Your task to perform on an android device: change the clock display to analog Image 0: 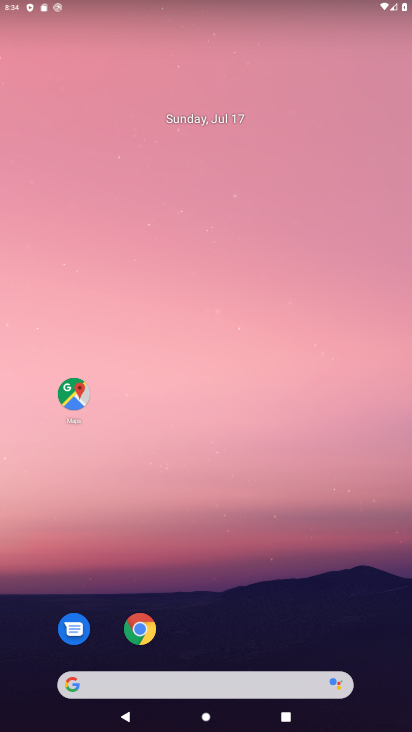
Step 0: drag from (180, 666) to (225, 83)
Your task to perform on an android device: change the clock display to analog Image 1: 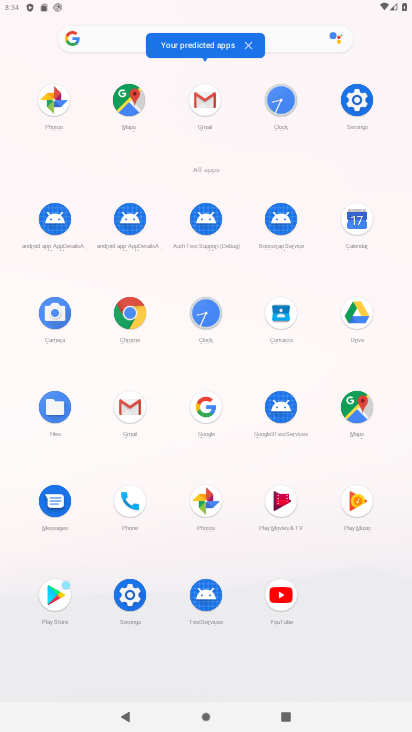
Step 1: click (201, 310)
Your task to perform on an android device: change the clock display to analog Image 2: 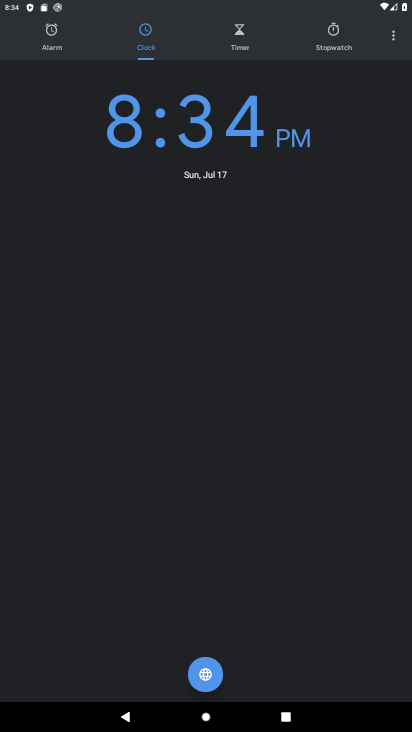
Step 2: click (396, 29)
Your task to perform on an android device: change the clock display to analog Image 3: 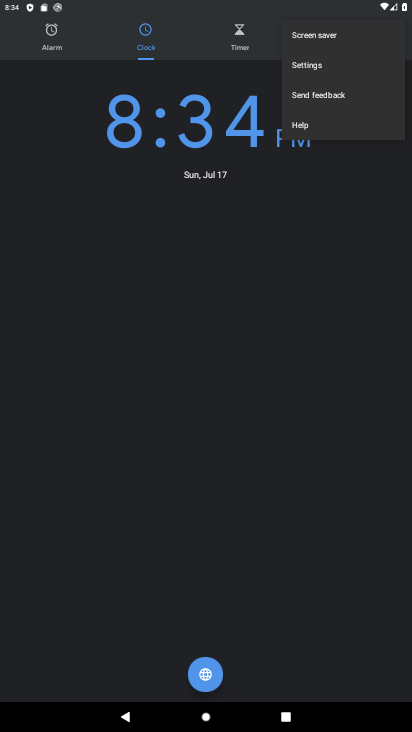
Step 3: click (332, 64)
Your task to perform on an android device: change the clock display to analog Image 4: 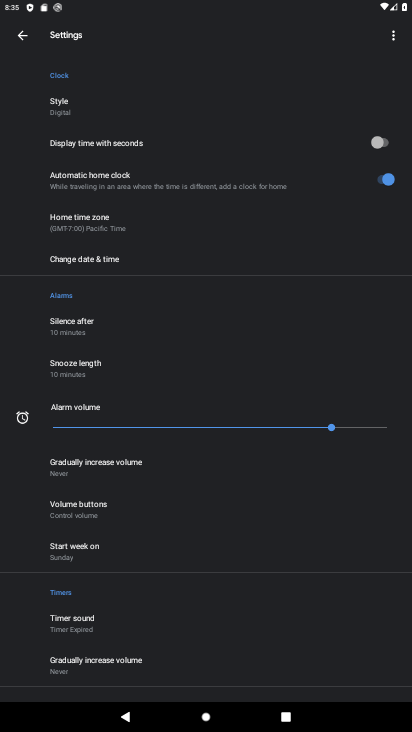
Step 4: click (148, 95)
Your task to perform on an android device: change the clock display to analog Image 5: 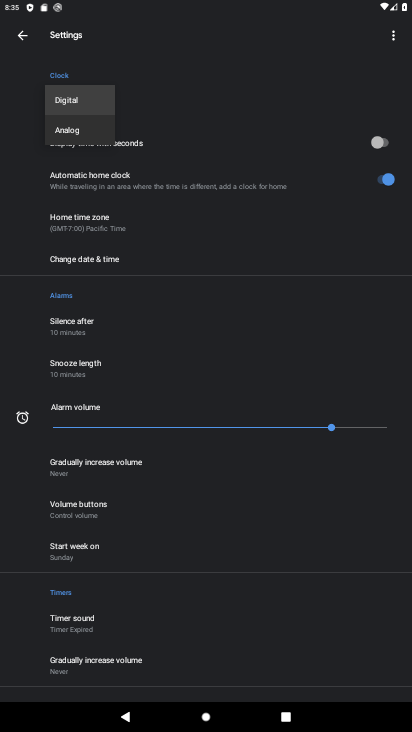
Step 5: click (80, 130)
Your task to perform on an android device: change the clock display to analog Image 6: 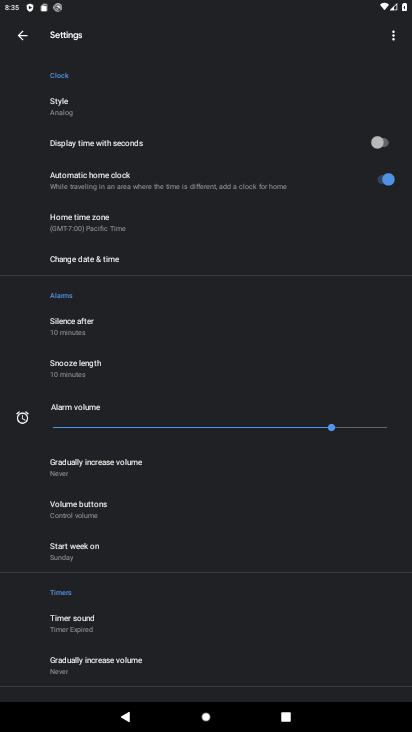
Step 6: task complete